Your task to perform on an android device: find snoozed emails in the gmail app Image 0: 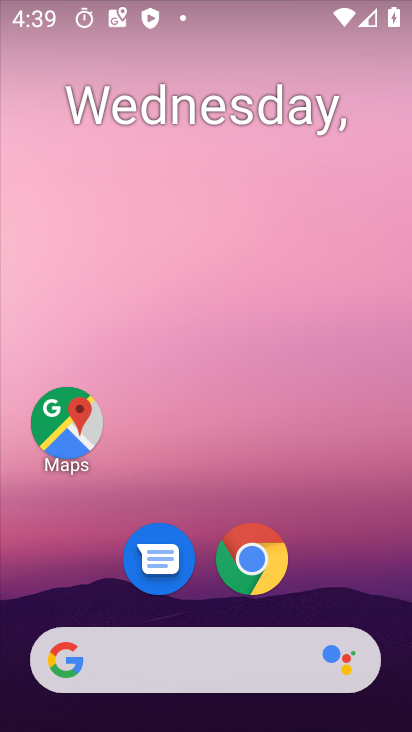
Step 0: drag from (332, 568) to (208, 123)
Your task to perform on an android device: find snoozed emails in the gmail app Image 1: 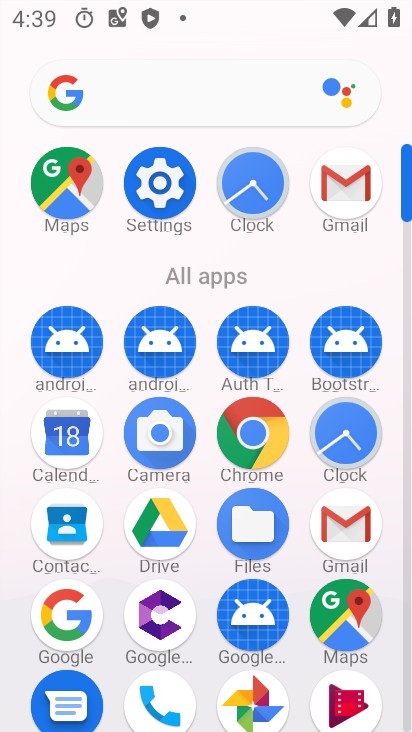
Step 1: click (346, 185)
Your task to perform on an android device: find snoozed emails in the gmail app Image 2: 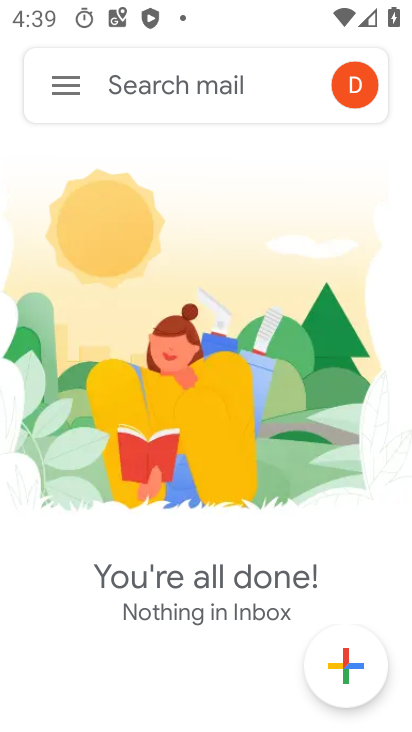
Step 2: click (66, 71)
Your task to perform on an android device: find snoozed emails in the gmail app Image 3: 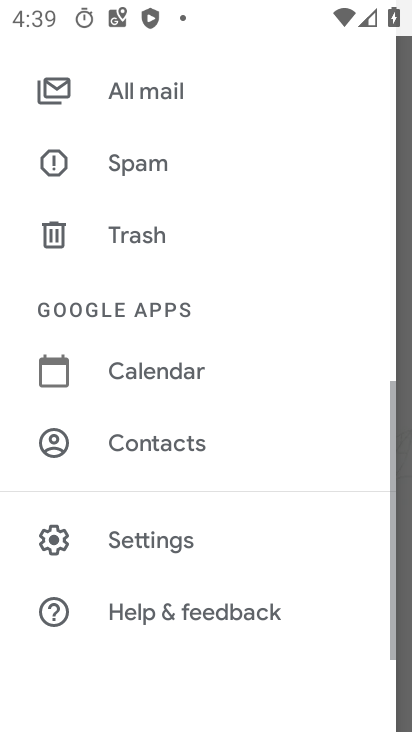
Step 3: drag from (175, 192) to (175, 620)
Your task to perform on an android device: find snoozed emails in the gmail app Image 4: 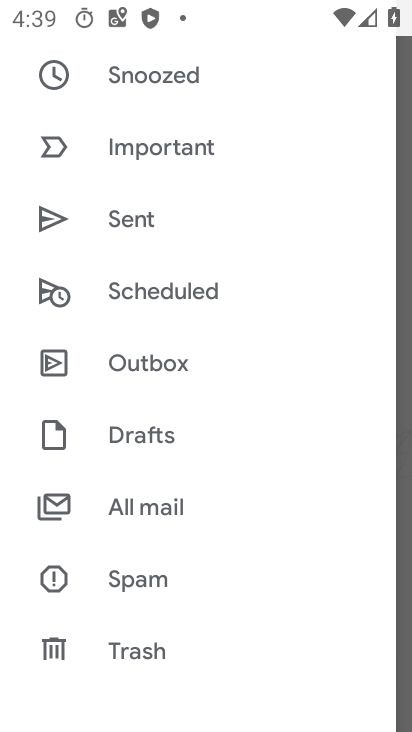
Step 4: drag from (154, 172) to (133, 619)
Your task to perform on an android device: find snoozed emails in the gmail app Image 5: 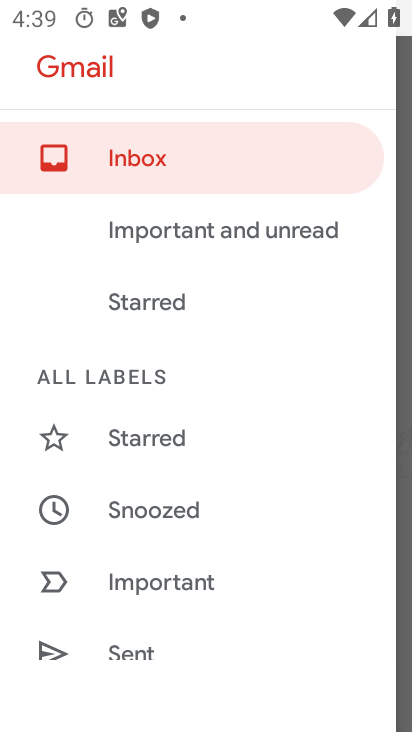
Step 5: click (148, 512)
Your task to perform on an android device: find snoozed emails in the gmail app Image 6: 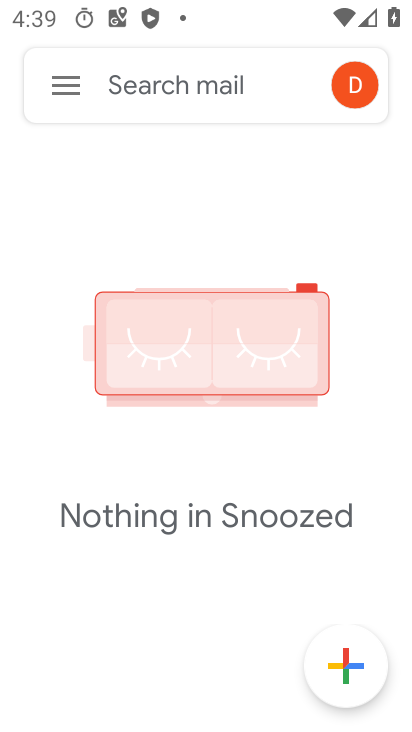
Step 6: task complete